Your task to perform on an android device: Open Android settings Image 0: 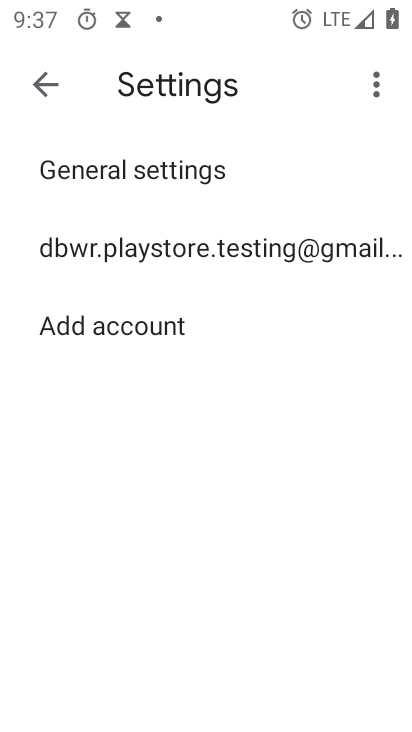
Step 0: press home button
Your task to perform on an android device: Open Android settings Image 1: 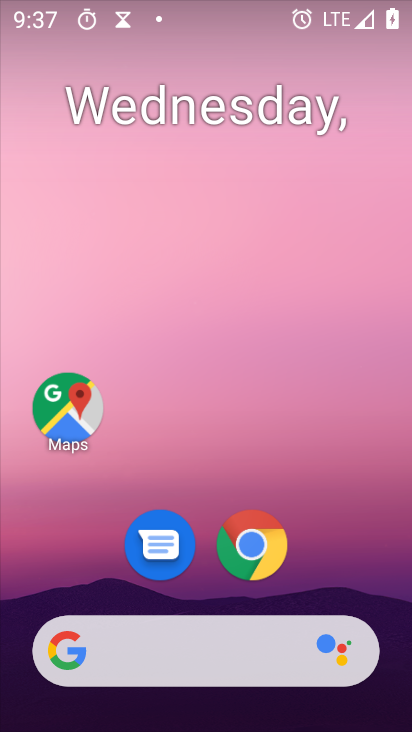
Step 1: drag from (217, 657) to (339, 156)
Your task to perform on an android device: Open Android settings Image 2: 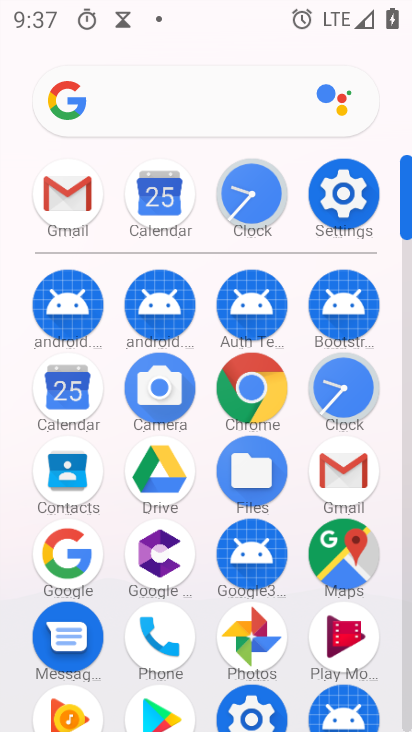
Step 2: click (333, 204)
Your task to perform on an android device: Open Android settings Image 3: 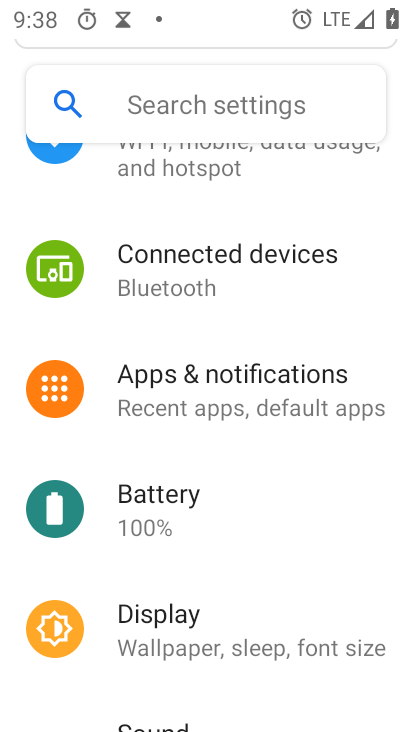
Step 3: task complete